Your task to perform on an android device: open app "Move to iOS" (install if not already installed) Image 0: 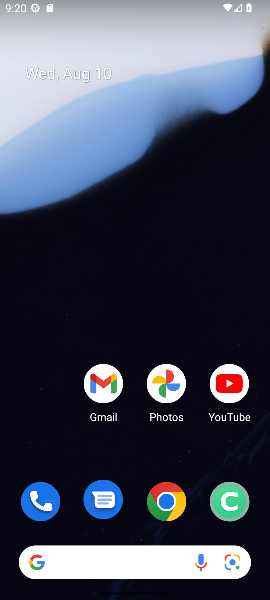
Step 0: drag from (133, 539) to (197, 78)
Your task to perform on an android device: open app "Move to iOS" (install if not already installed) Image 1: 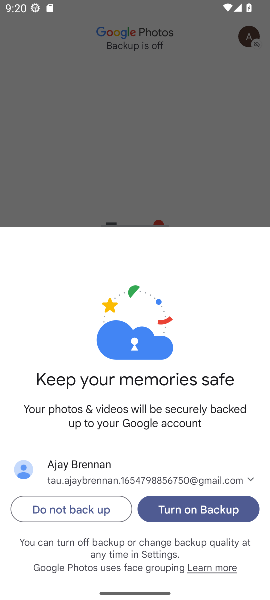
Step 1: press home button
Your task to perform on an android device: open app "Move to iOS" (install if not already installed) Image 2: 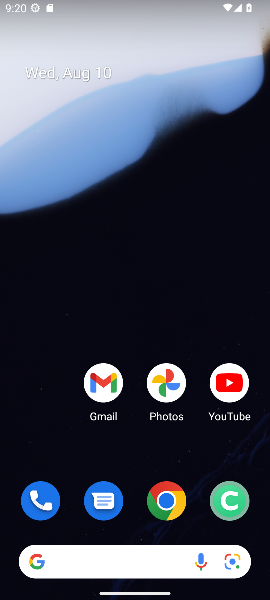
Step 2: drag from (137, 539) to (181, 340)
Your task to perform on an android device: open app "Move to iOS" (install if not already installed) Image 3: 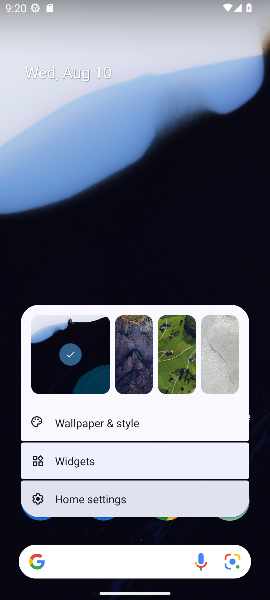
Step 3: click (181, 340)
Your task to perform on an android device: open app "Move to iOS" (install if not already installed) Image 4: 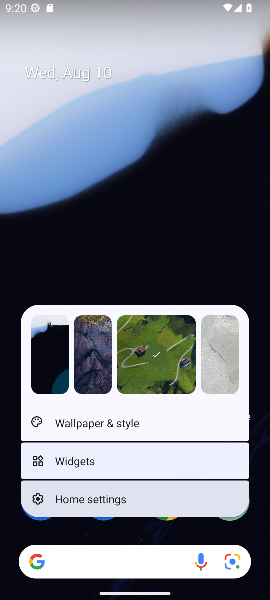
Step 4: click (71, 241)
Your task to perform on an android device: open app "Move to iOS" (install if not already installed) Image 5: 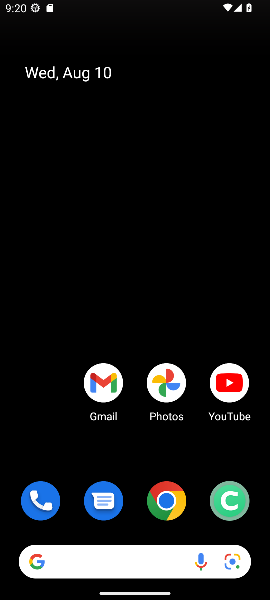
Step 5: click (71, 241)
Your task to perform on an android device: open app "Move to iOS" (install if not already installed) Image 6: 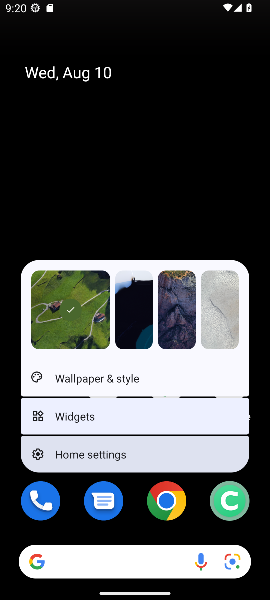
Step 6: drag from (71, 241) to (62, 343)
Your task to perform on an android device: open app "Move to iOS" (install if not already installed) Image 7: 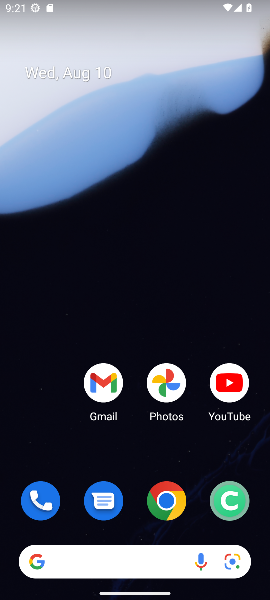
Step 7: drag from (66, 428) to (75, 66)
Your task to perform on an android device: open app "Move to iOS" (install if not already installed) Image 8: 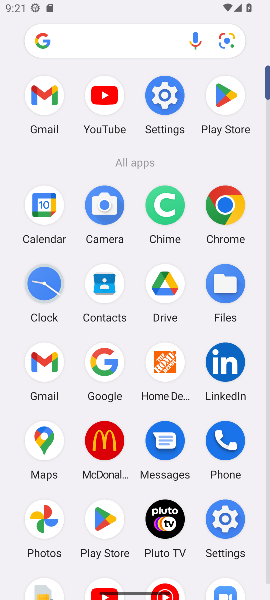
Step 8: click (99, 515)
Your task to perform on an android device: open app "Move to iOS" (install if not already installed) Image 9: 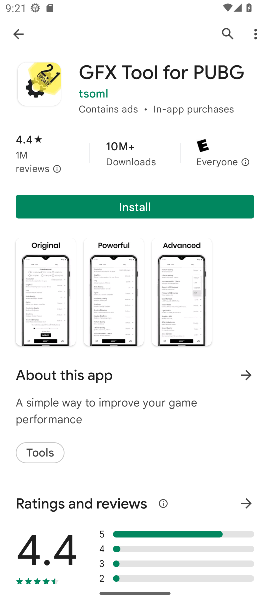
Step 9: click (233, 37)
Your task to perform on an android device: open app "Move to iOS" (install if not already installed) Image 10: 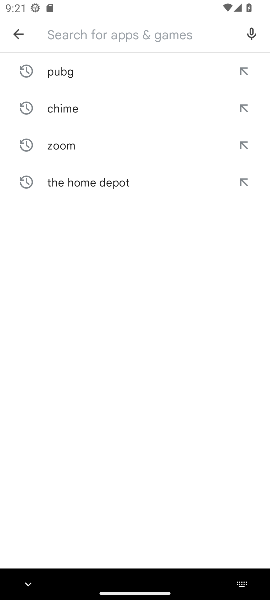
Step 10: type "move iso"
Your task to perform on an android device: open app "Move to iOS" (install if not already installed) Image 11: 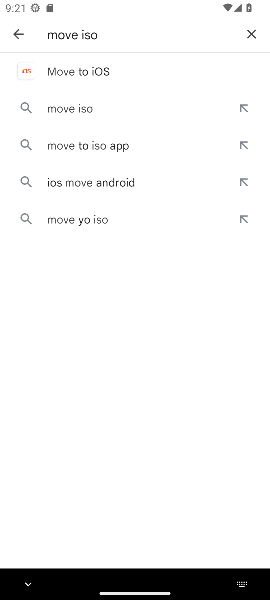
Step 11: click (118, 76)
Your task to perform on an android device: open app "Move to iOS" (install if not already installed) Image 12: 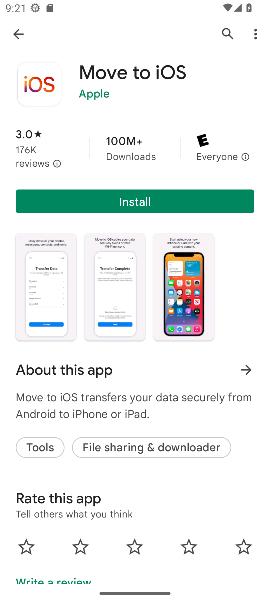
Step 12: click (189, 205)
Your task to perform on an android device: open app "Move to iOS" (install if not already installed) Image 13: 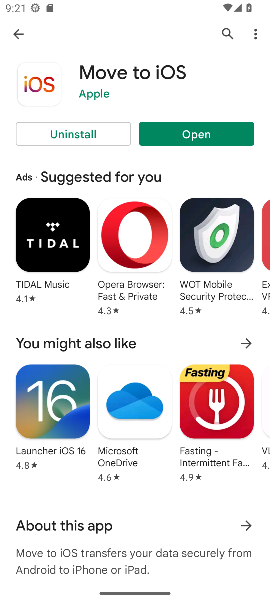
Step 13: task complete